Your task to perform on an android device: turn on wifi Image 0: 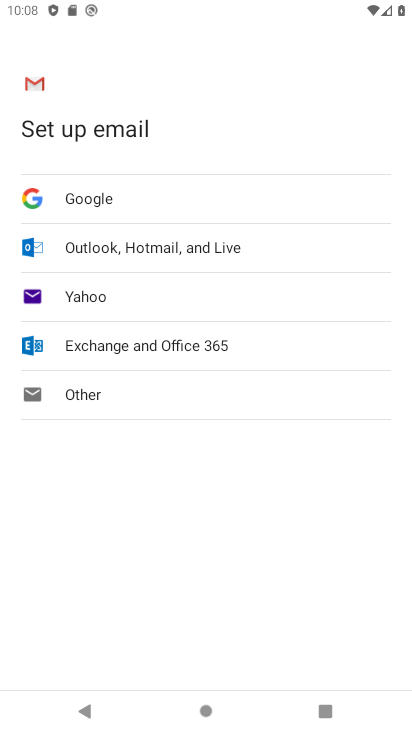
Step 0: press back button
Your task to perform on an android device: turn on wifi Image 1: 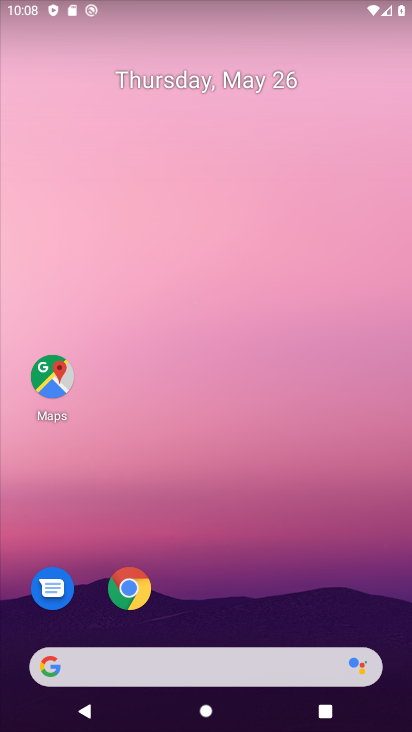
Step 1: drag from (282, 548) to (271, 104)
Your task to perform on an android device: turn on wifi Image 2: 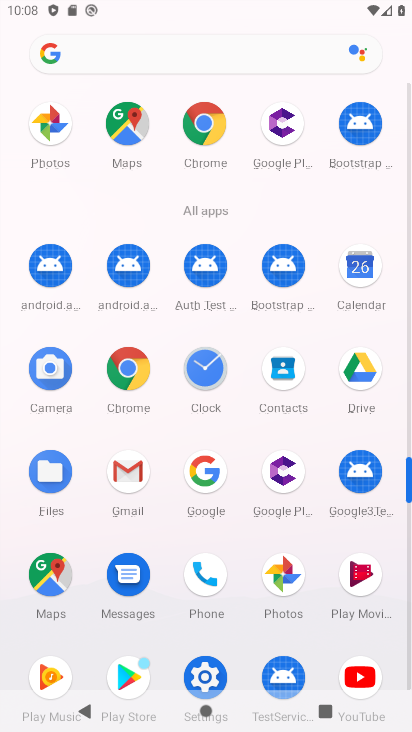
Step 2: drag from (262, 479) to (228, 13)
Your task to perform on an android device: turn on wifi Image 3: 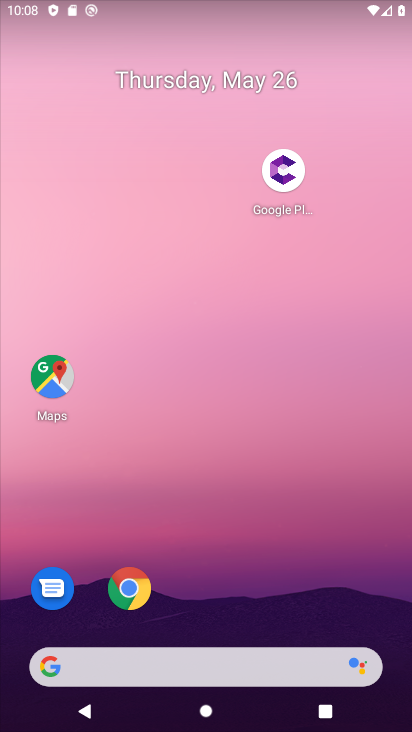
Step 3: click (204, 219)
Your task to perform on an android device: turn on wifi Image 4: 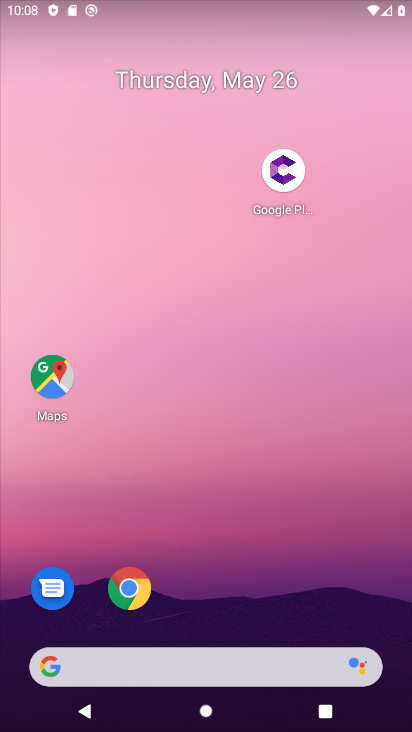
Step 4: click (103, 57)
Your task to perform on an android device: turn on wifi Image 5: 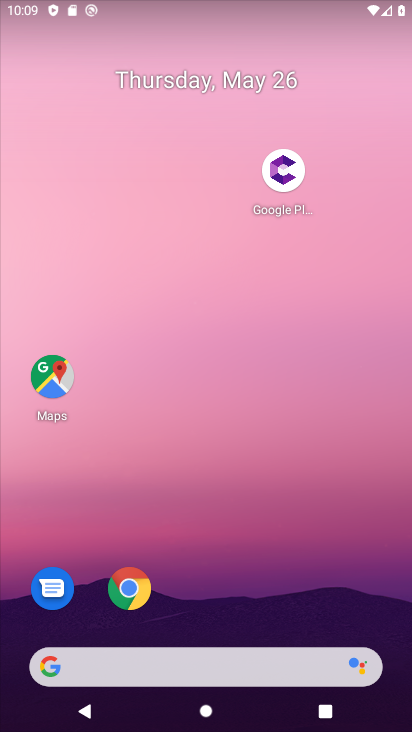
Step 5: drag from (172, 186) to (163, 53)
Your task to perform on an android device: turn on wifi Image 6: 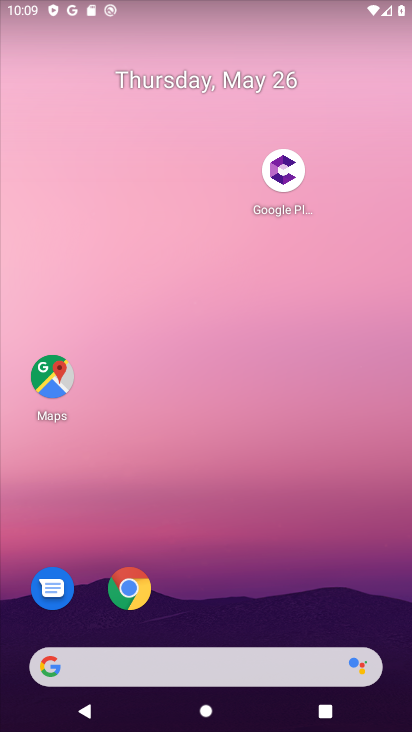
Step 6: drag from (195, 481) to (213, 153)
Your task to perform on an android device: turn on wifi Image 7: 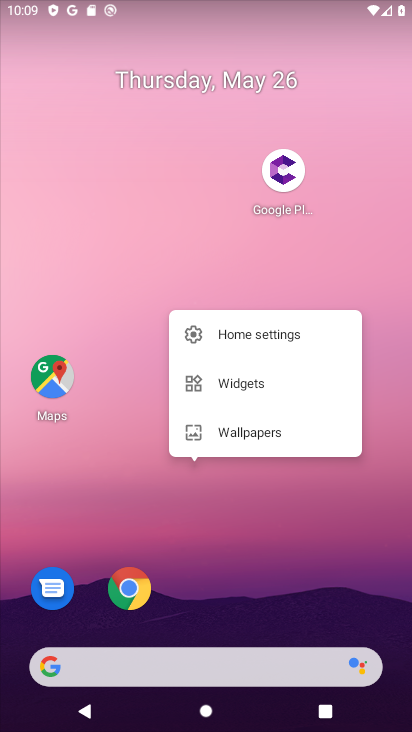
Step 7: click (210, 102)
Your task to perform on an android device: turn on wifi Image 8: 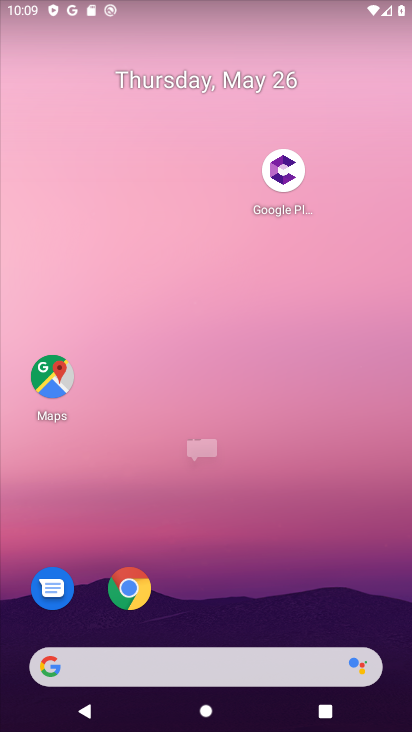
Step 8: drag from (143, 37) to (186, 70)
Your task to perform on an android device: turn on wifi Image 9: 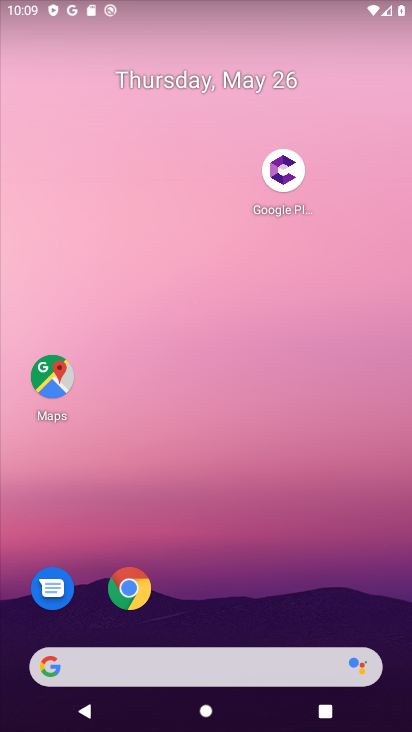
Step 9: drag from (204, 76) to (301, 153)
Your task to perform on an android device: turn on wifi Image 10: 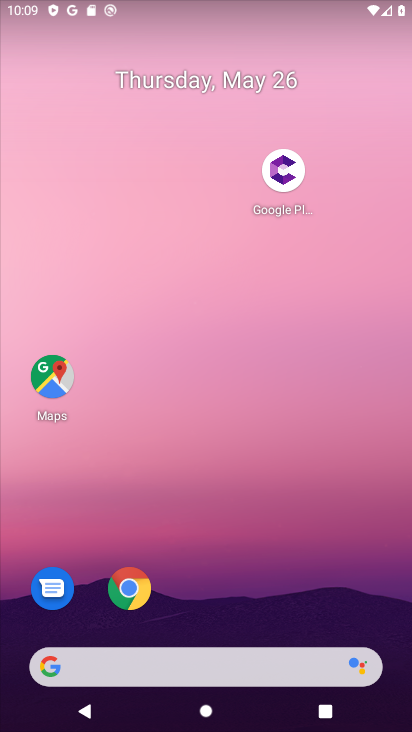
Step 10: drag from (183, 62) to (170, 206)
Your task to perform on an android device: turn on wifi Image 11: 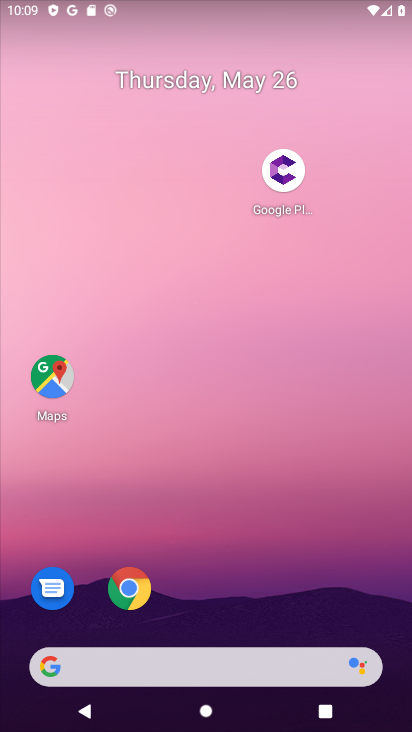
Step 11: drag from (84, 7) to (161, 157)
Your task to perform on an android device: turn on wifi Image 12: 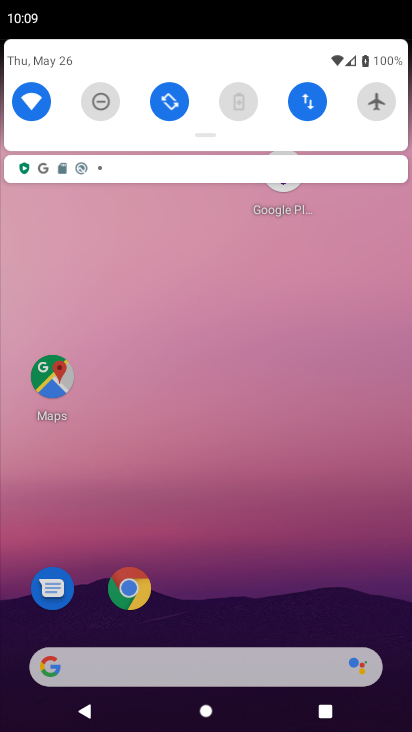
Step 12: drag from (198, 486) to (150, 77)
Your task to perform on an android device: turn on wifi Image 13: 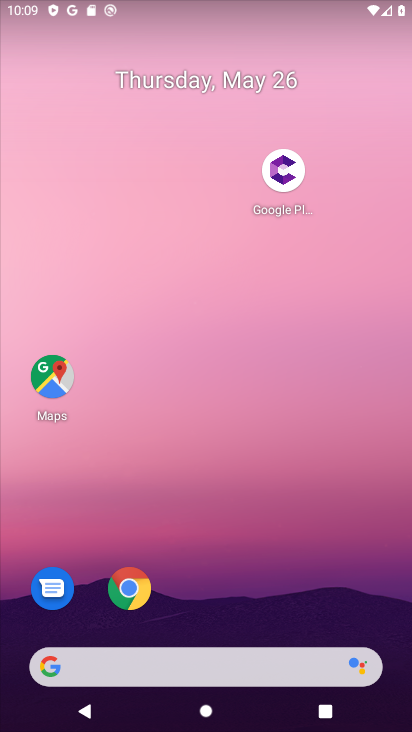
Step 13: drag from (204, 251) to (179, 88)
Your task to perform on an android device: turn on wifi Image 14: 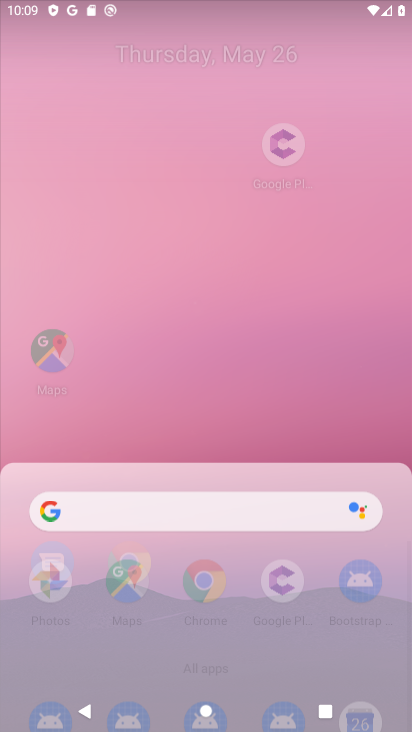
Step 14: drag from (202, 610) to (139, 209)
Your task to perform on an android device: turn on wifi Image 15: 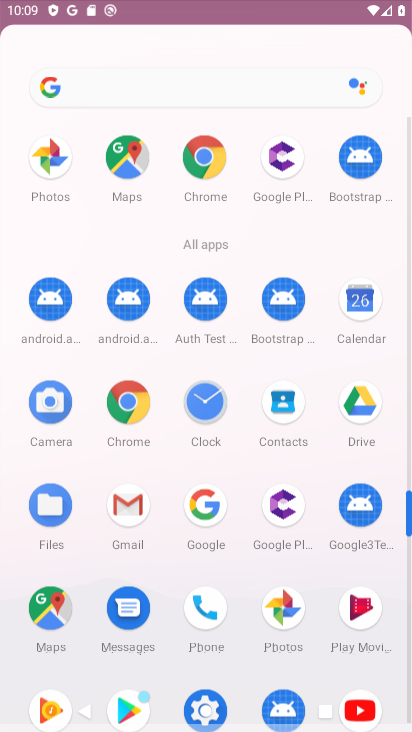
Step 15: drag from (194, 402) to (179, 138)
Your task to perform on an android device: turn on wifi Image 16: 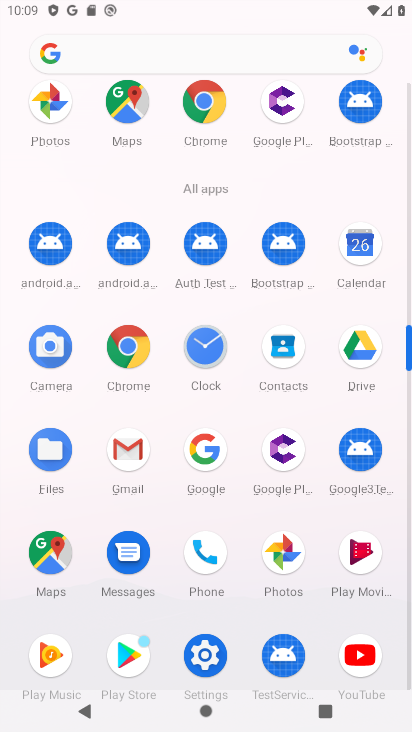
Step 16: click (208, 666)
Your task to perform on an android device: turn on wifi Image 17: 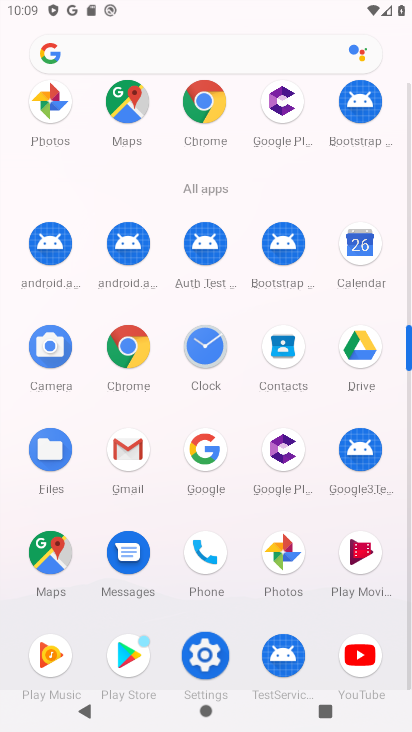
Step 17: click (219, 658)
Your task to perform on an android device: turn on wifi Image 18: 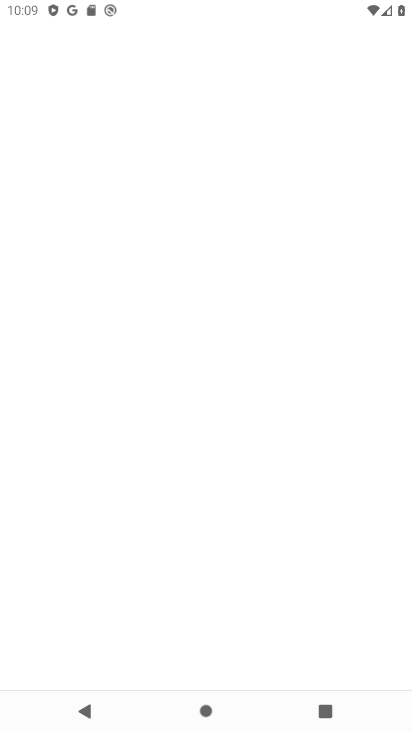
Step 18: click (208, 672)
Your task to perform on an android device: turn on wifi Image 19: 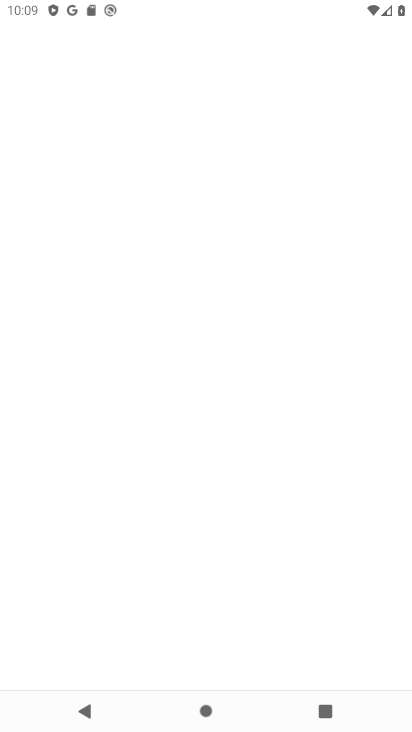
Step 19: click (212, 672)
Your task to perform on an android device: turn on wifi Image 20: 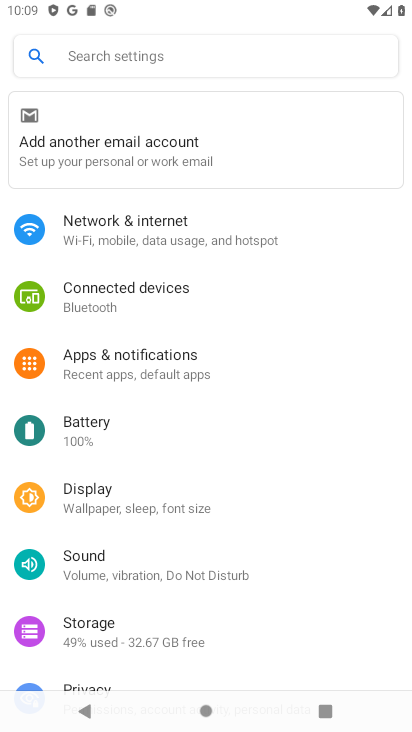
Step 20: click (152, 251)
Your task to perform on an android device: turn on wifi Image 21: 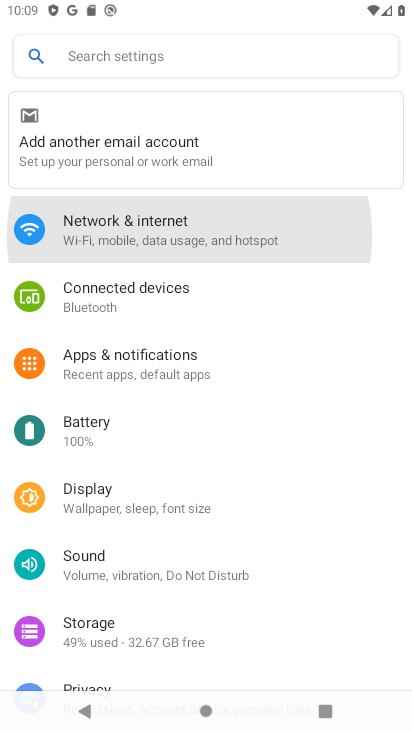
Step 21: click (152, 248)
Your task to perform on an android device: turn on wifi Image 22: 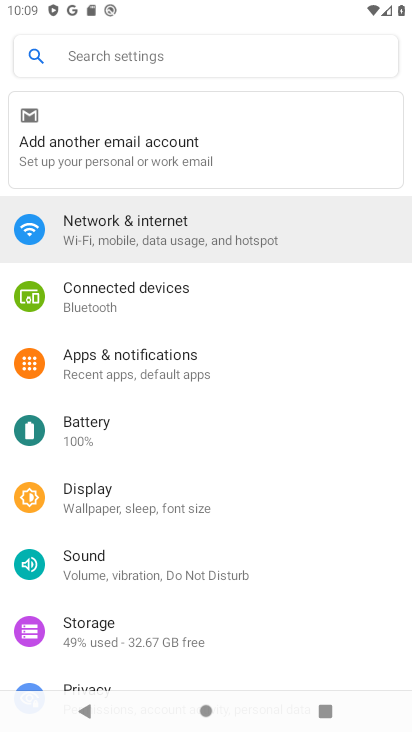
Step 22: click (154, 249)
Your task to perform on an android device: turn on wifi Image 23: 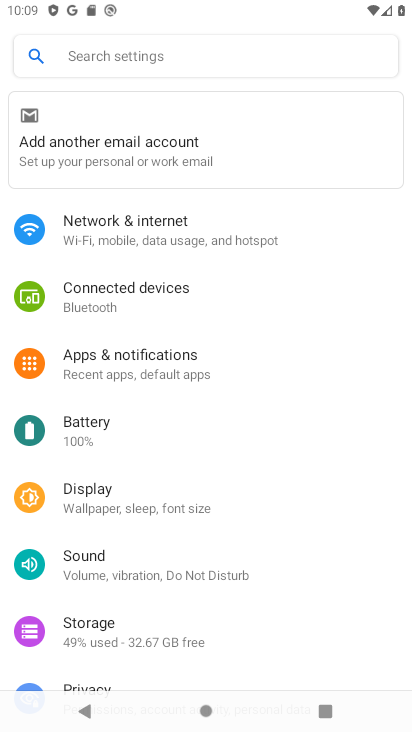
Step 23: click (168, 227)
Your task to perform on an android device: turn on wifi Image 24: 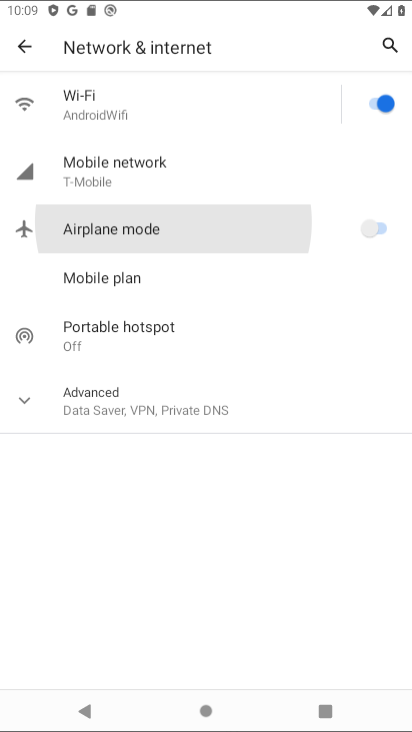
Step 24: click (177, 231)
Your task to perform on an android device: turn on wifi Image 25: 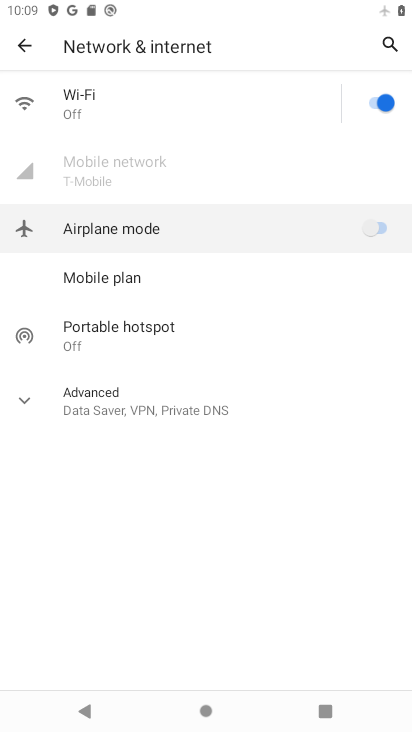
Step 25: click (184, 241)
Your task to perform on an android device: turn on wifi Image 26: 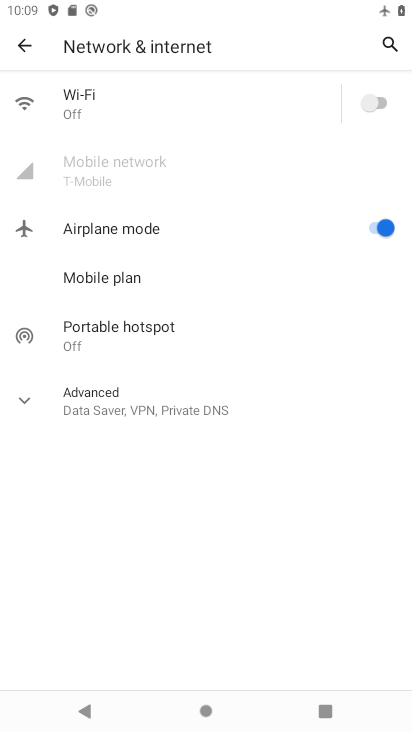
Step 26: click (376, 94)
Your task to perform on an android device: turn on wifi Image 27: 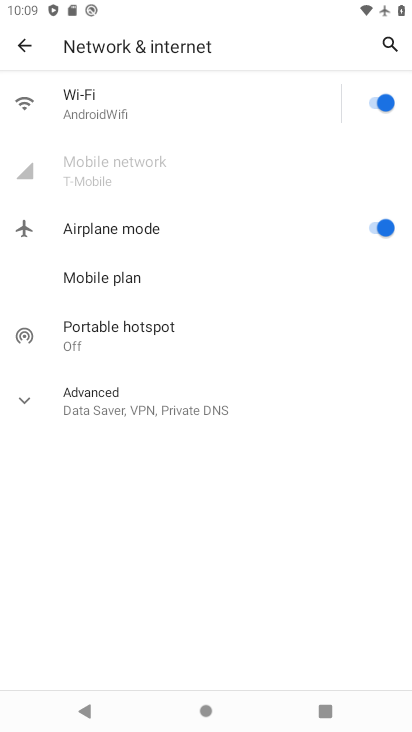
Step 27: click (388, 231)
Your task to perform on an android device: turn on wifi Image 28: 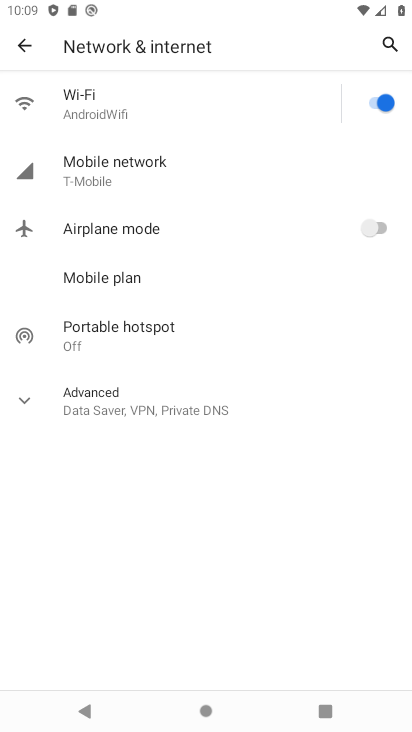
Step 28: task complete